Your task to perform on an android device: turn on wifi Image 0: 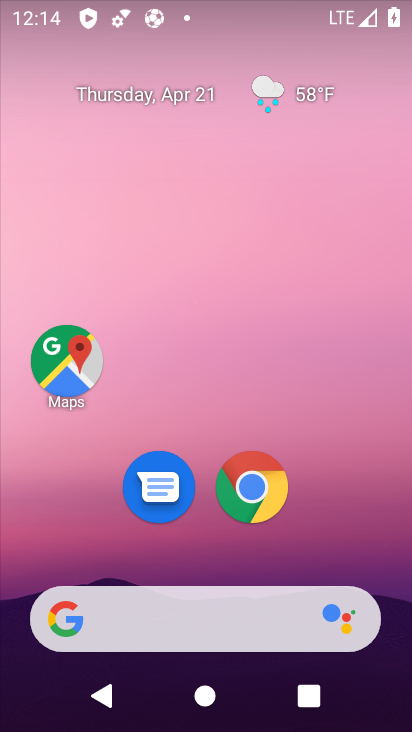
Step 0: drag from (360, 529) to (335, 9)
Your task to perform on an android device: turn on wifi Image 1: 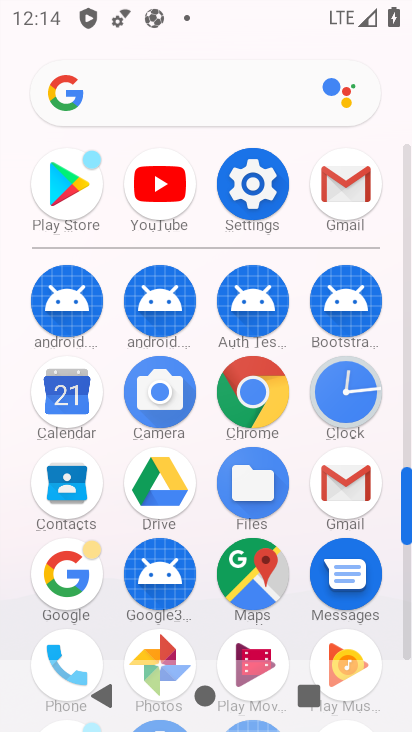
Step 1: click (243, 197)
Your task to perform on an android device: turn on wifi Image 2: 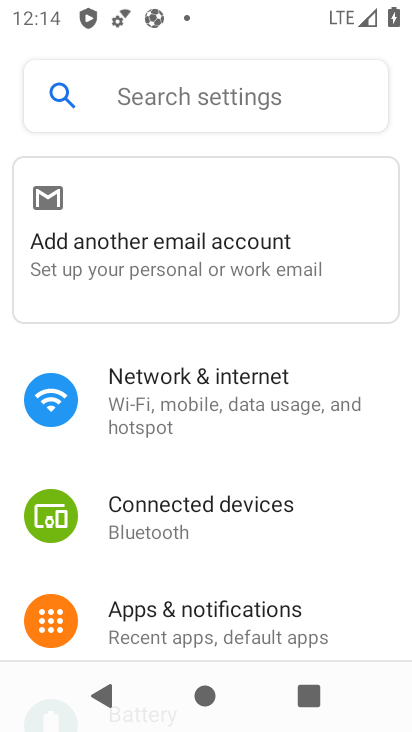
Step 2: click (181, 390)
Your task to perform on an android device: turn on wifi Image 3: 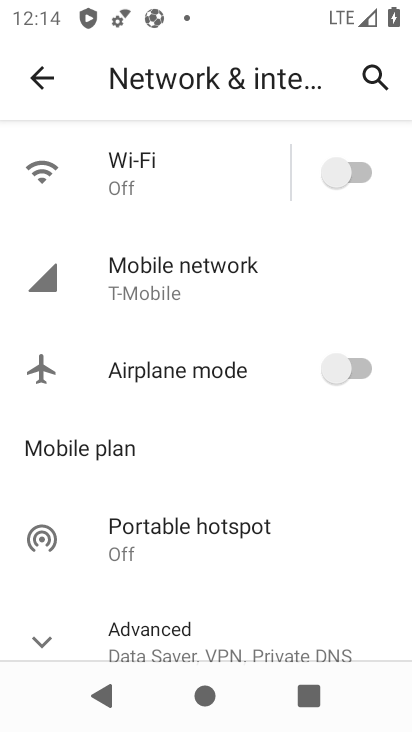
Step 3: click (323, 163)
Your task to perform on an android device: turn on wifi Image 4: 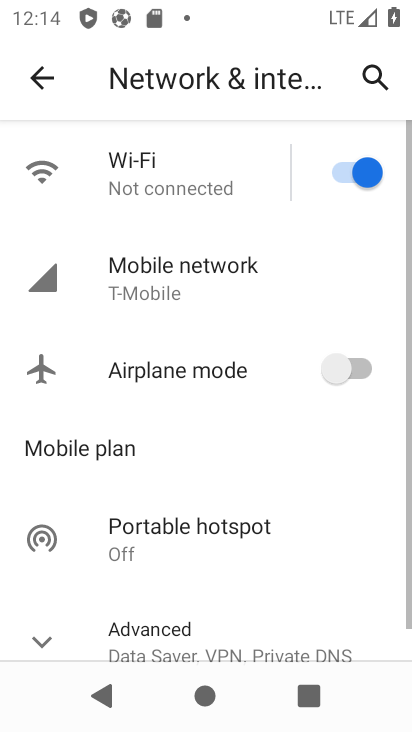
Step 4: task complete